Your task to perform on an android device: Open notification settings Image 0: 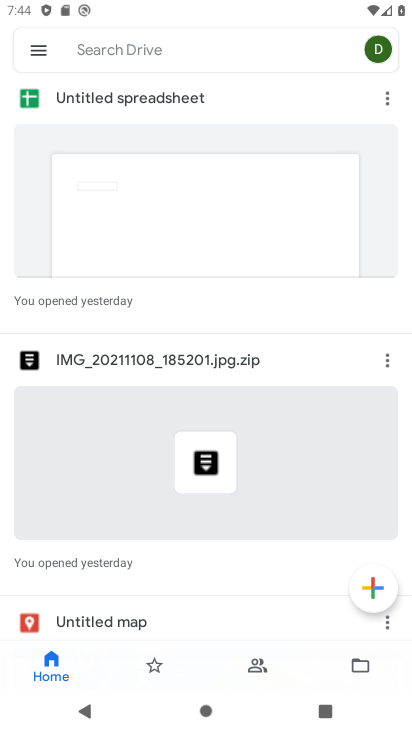
Step 0: press home button
Your task to perform on an android device: Open notification settings Image 1: 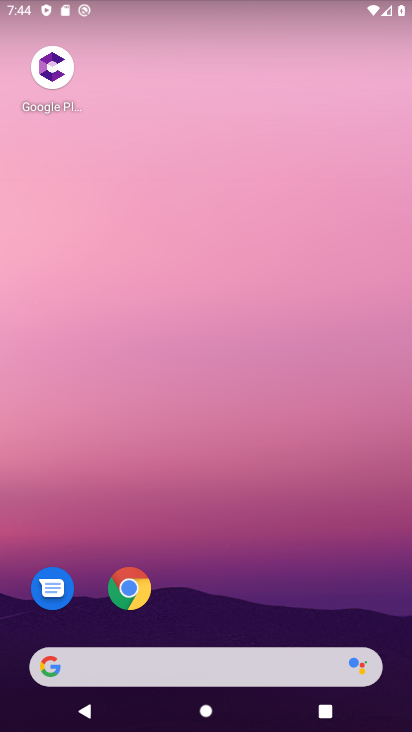
Step 1: drag from (228, 560) to (305, 248)
Your task to perform on an android device: Open notification settings Image 2: 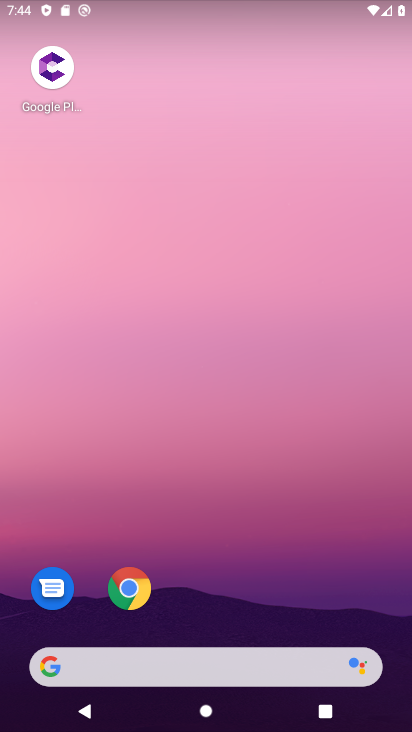
Step 2: drag from (316, 518) to (356, 104)
Your task to perform on an android device: Open notification settings Image 3: 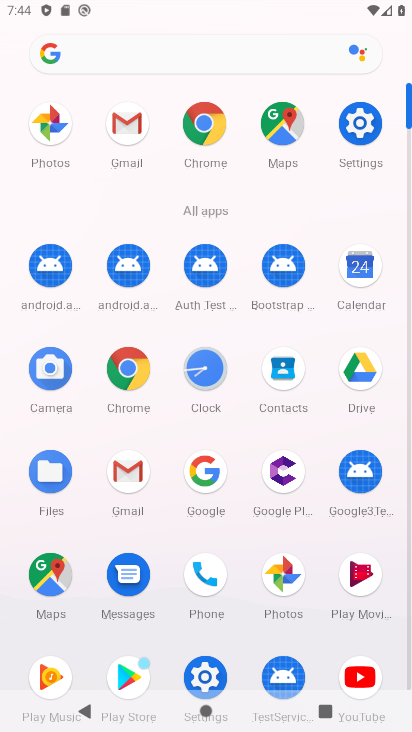
Step 3: click (360, 119)
Your task to perform on an android device: Open notification settings Image 4: 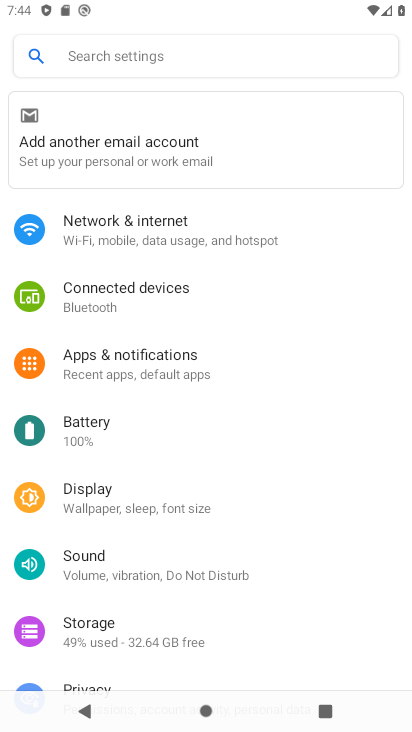
Step 4: click (148, 352)
Your task to perform on an android device: Open notification settings Image 5: 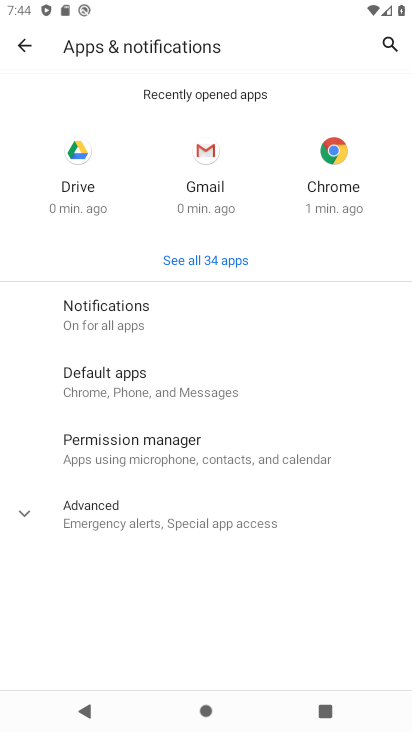
Step 5: click (129, 323)
Your task to perform on an android device: Open notification settings Image 6: 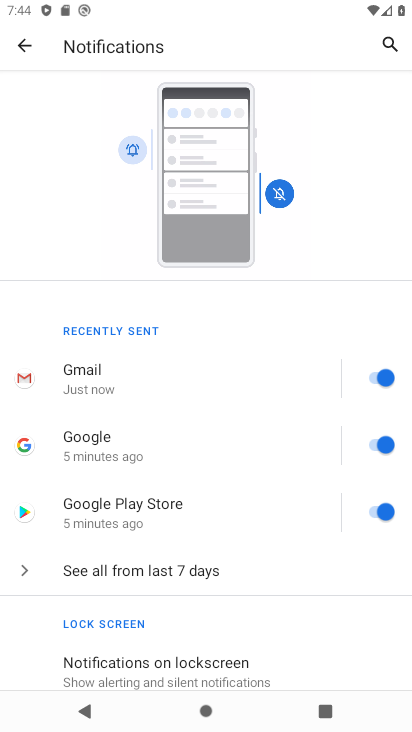
Step 6: task complete